Your task to perform on an android device: delete a single message in the gmail app Image 0: 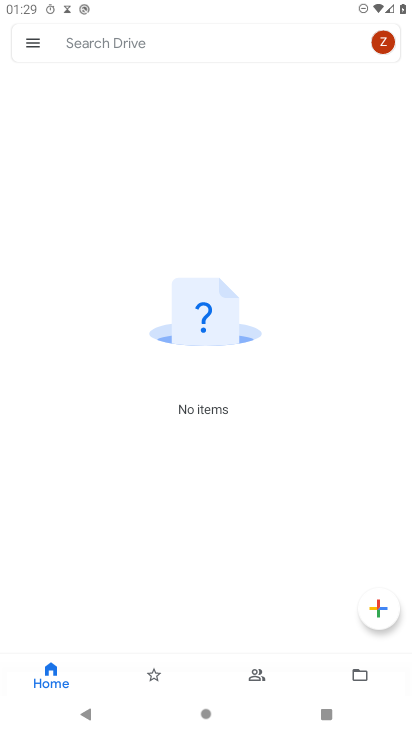
Step 0: press home button
Your task to perform on an android device: delete a single message in the gmail app Image 1: 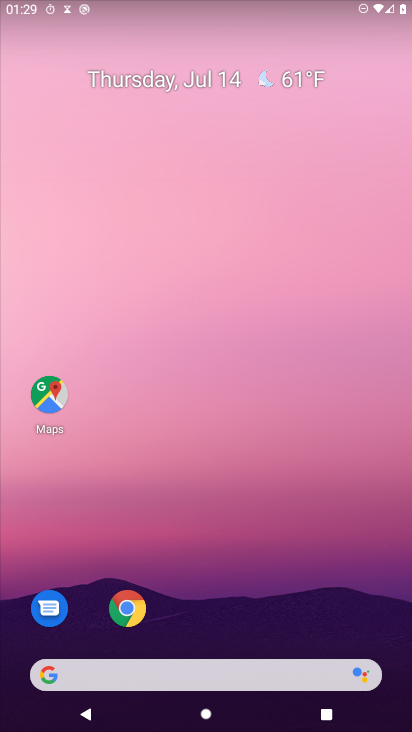
Step 1: drag from (252, 563) to (389, 526)
Your task to perform on an android device: delete a single message in the gmail app Image 2: 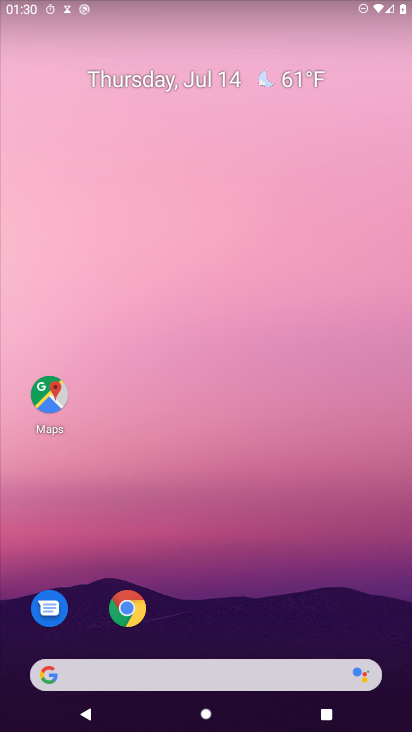
Step 2: drag from (236, 563) to (324, 40)
Your task to perform on an android device: delete a single message in the gmail app Image 3: 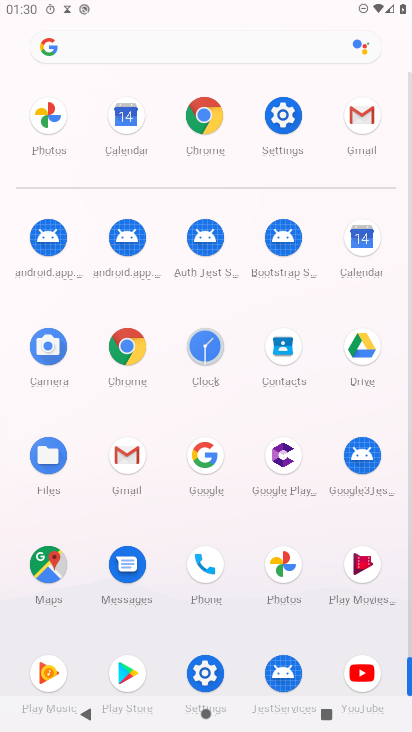
Step 3: click (359, 110)
Your task to perform on an android device: delete a single message in the gmail app Image 4: 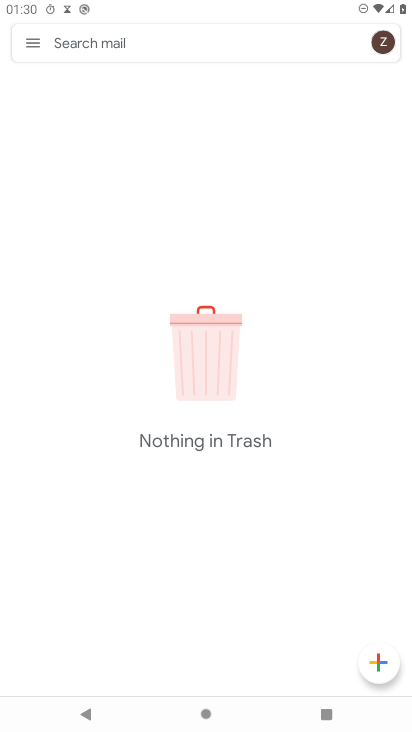
Step 4: click (34, 36)
Your task to perform on an android device: delete a single message in the gmail app Image 5: 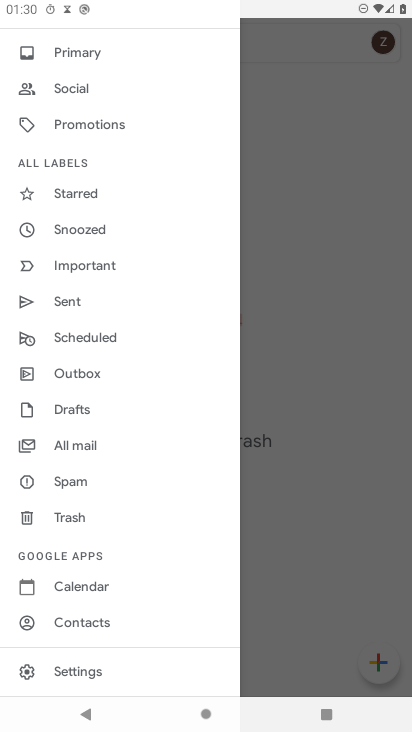
Step 5: click (77, 440)
Your task to perform on an android device: delete a single message in the gmail app Image 6: 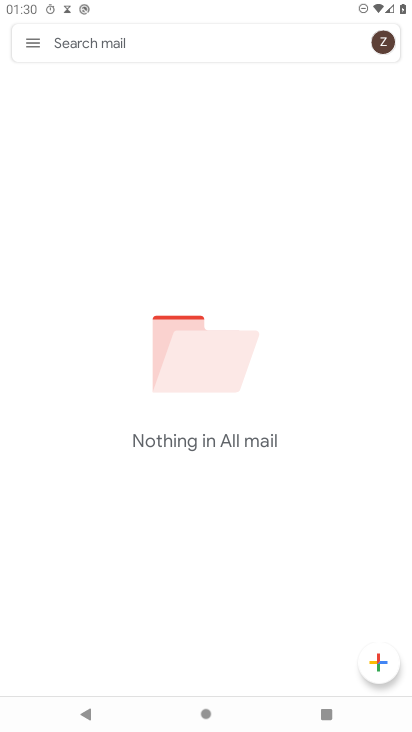
Step 6: task complete